Your task to perform on an android device: toggle notifications settings in the gmail app Image 0: 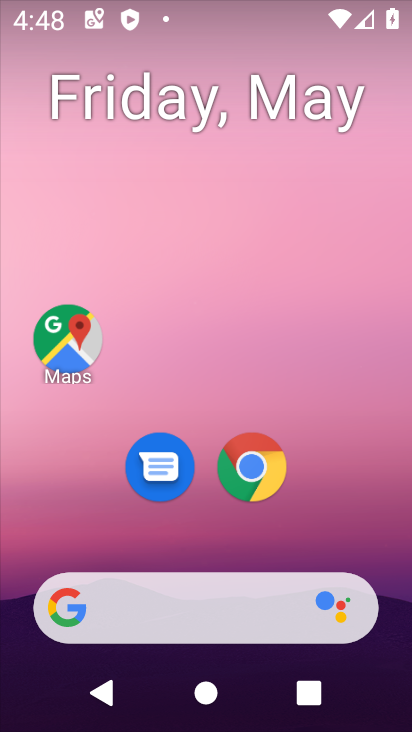
Step 0: drag from (332, 510) to (308, 0)
Your task to perform on an android device: toggle notifications settings in the gmail app Image 1: 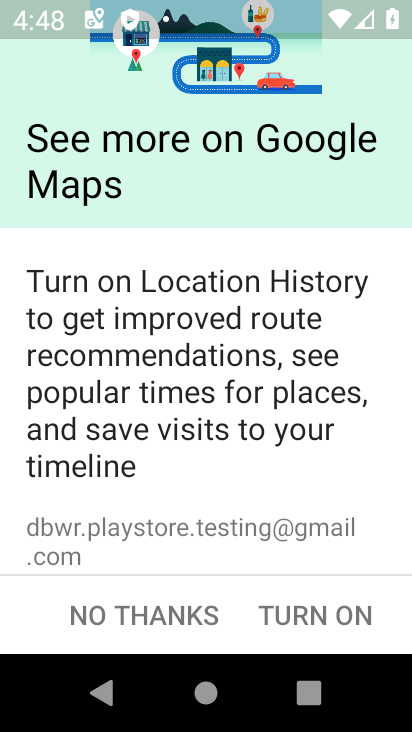
Step 1: press back button
Your task to perform on an android device: toggle notifications settings in the gmail app Image 2: 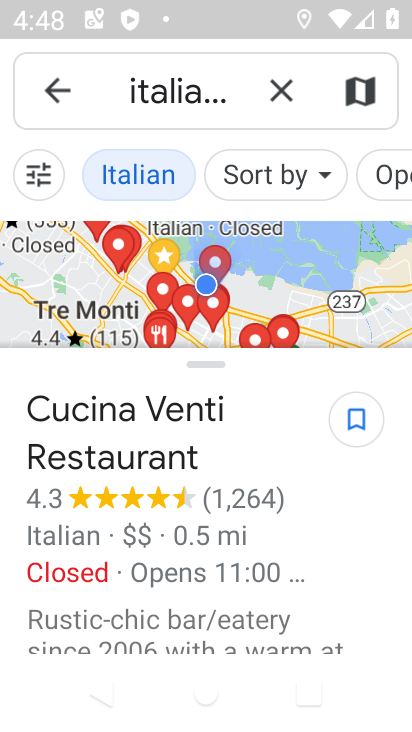
Step 2: press home button
Your task to perform on an android device: toggle notifications settings in the gmail app Image 3: 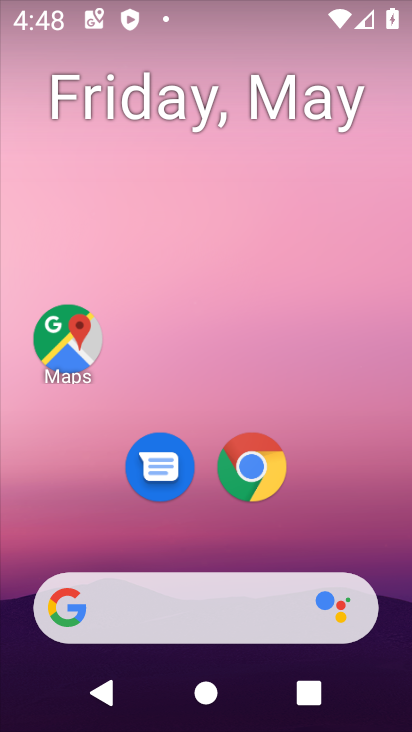
Step 3: drag from (324, 514) to (245, 79)
Your task to perform on an android device: toggle notifications settings in the gmail app Image 4: 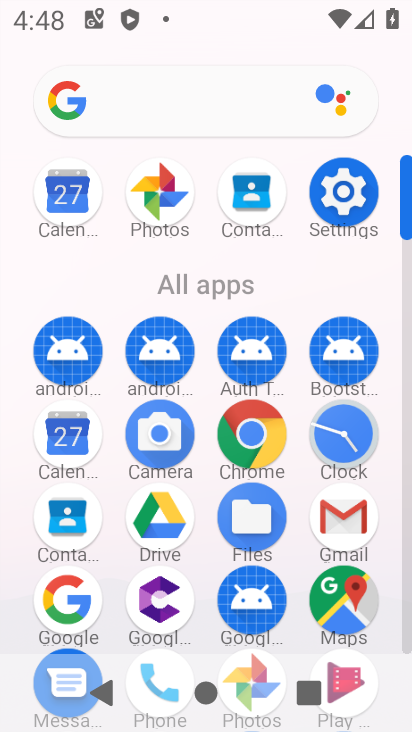
Step 4: click (341, 526)
Your task to perform on an android device: toggle notifications settings in the gmail app Image 5: 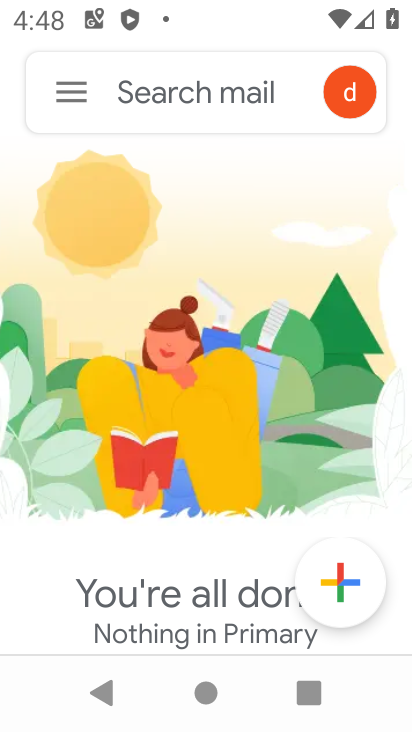
Step 5: click (79, 101)
Your task to perform on an android device: toggle notifications settings in the gmail app Image 6: 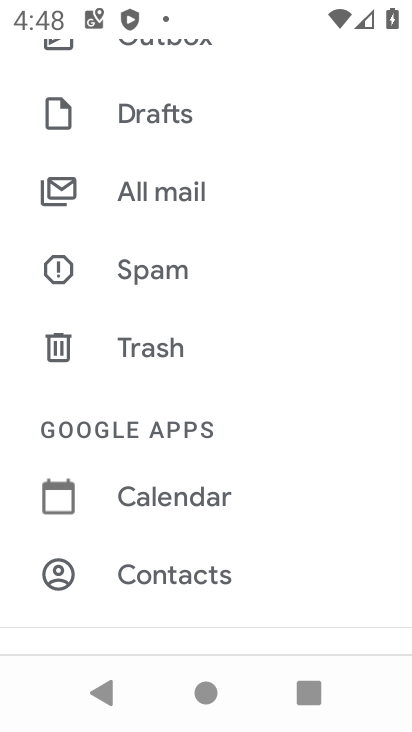
Step 6: drag from (189, 502) to (242, 202)
Your task to perform on an android device: toggle notifications settings in the gmail app Image 7: 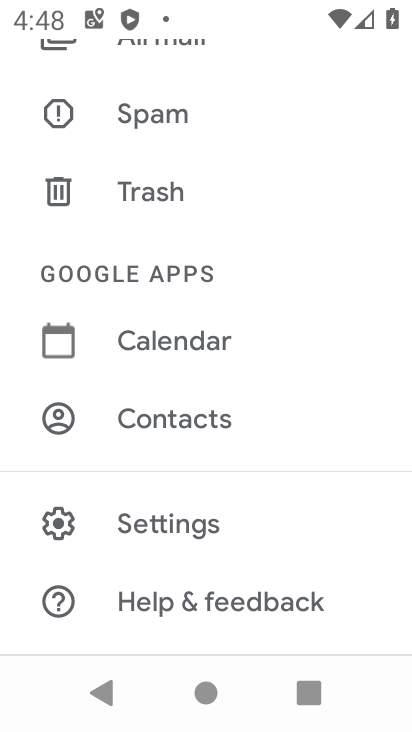
Step 7: click (193, 518)
Your task to perform on an android device: toggle notifications settings in the gmail app Image 8: 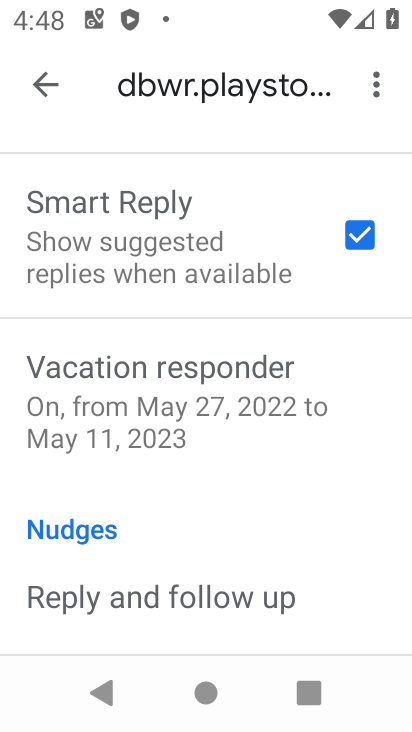
Step 8: drag from (220, 318) to (155, 647)
Your task to perform on an android device: toggle notifications settings in the gmail app Image 9: 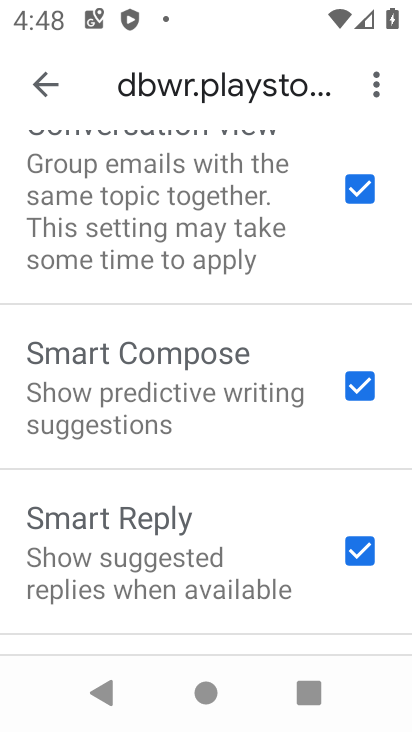
Step 9: drag from (219, 316) to (234, 619)
Your task to perform on an android device: toggle notifications settings in the gmail app Image 10: 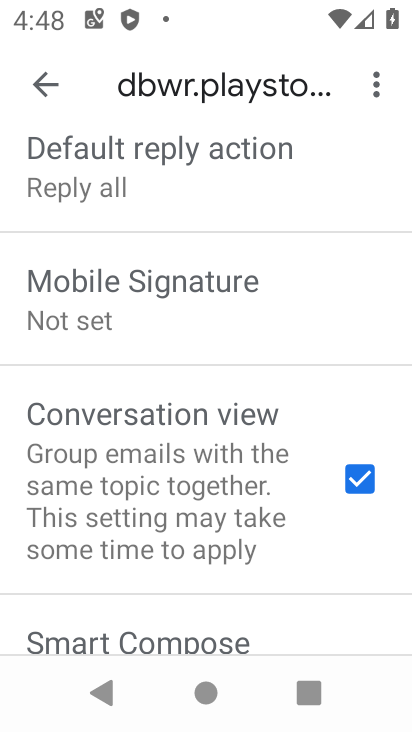
Step 10: drag from (271, 282) to (274, 594)
Your task to perform on an android device: toggle notifications settings in the gmail app Image 11: 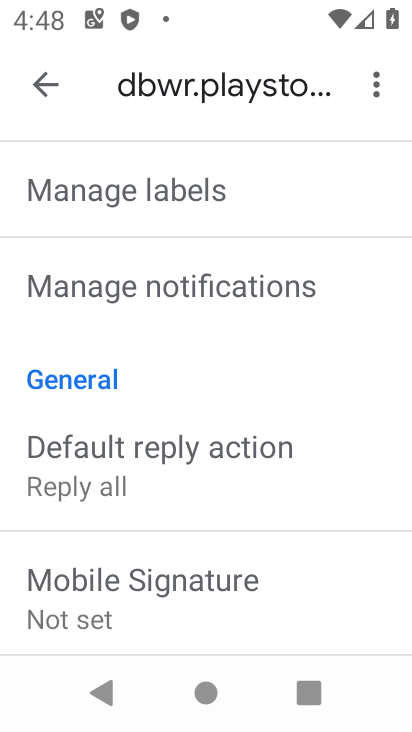
Step 11: click (235, 280)
Your task to perform on an android device: toggle notifications settings in the gmail app Image 12: 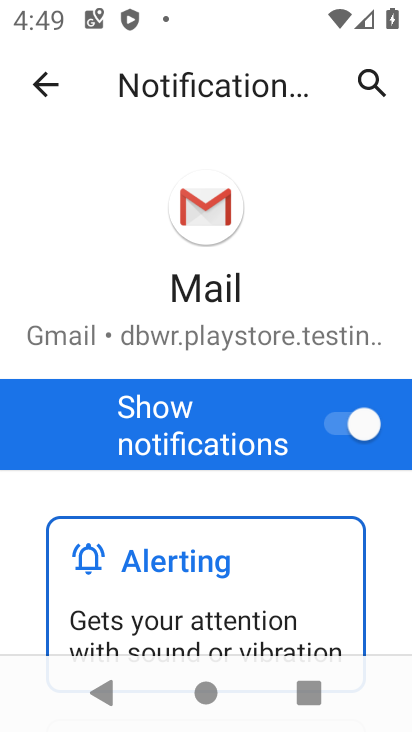
Step 12: click (340, 424)
Your task to perform on an android device: toggle notifications settings in the gmail app Image 13: 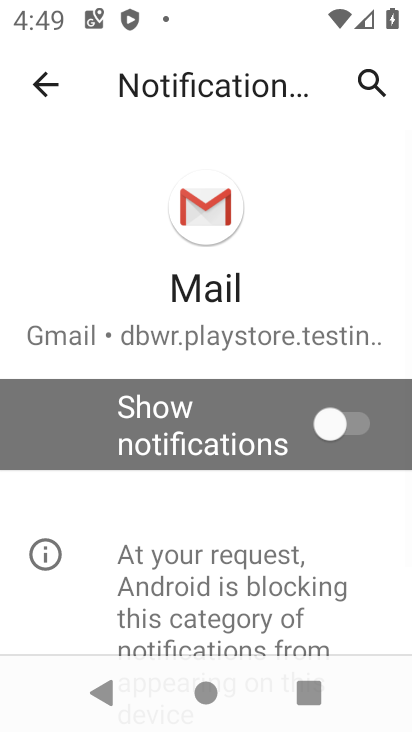
Step 13: task complete